Your task to perform on an android device: Open Wikipedia Image 0: 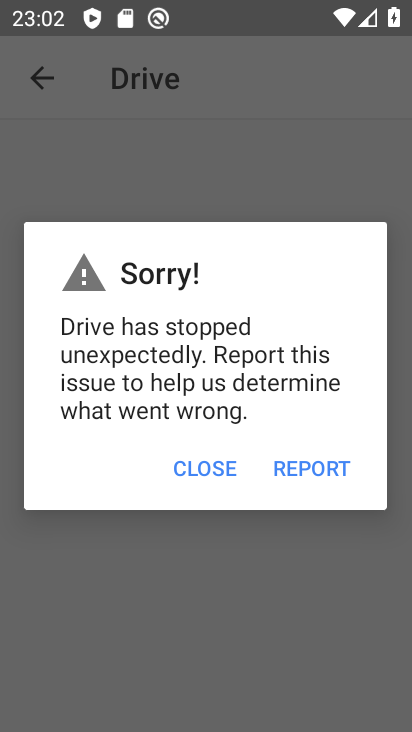
Step 0: press home button
Your task to perform on an android device: Open Wikipedia Image 1: 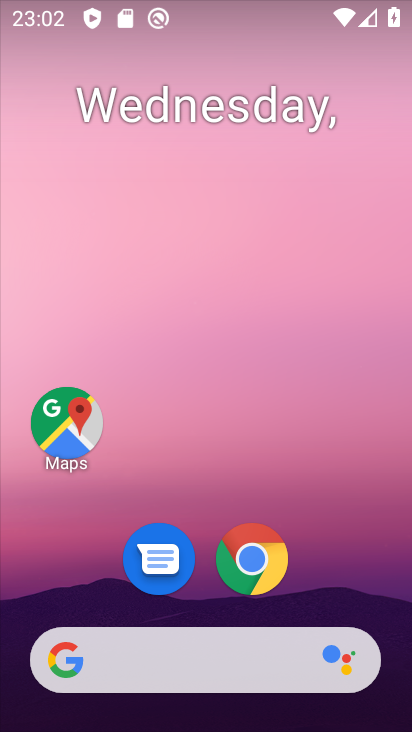
Step 1: click (258, 560)
Your task to perform on an android device: Open Wikipedia Image 2: 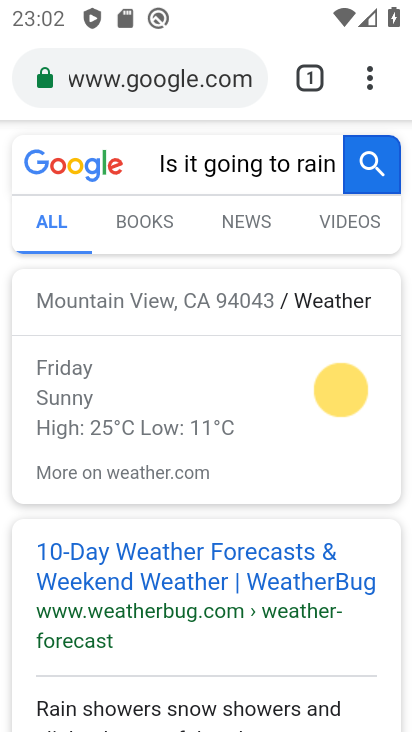
Step 2: click (161, 81)
Your task to perform on an android device: Open Wikipedia Image 3: 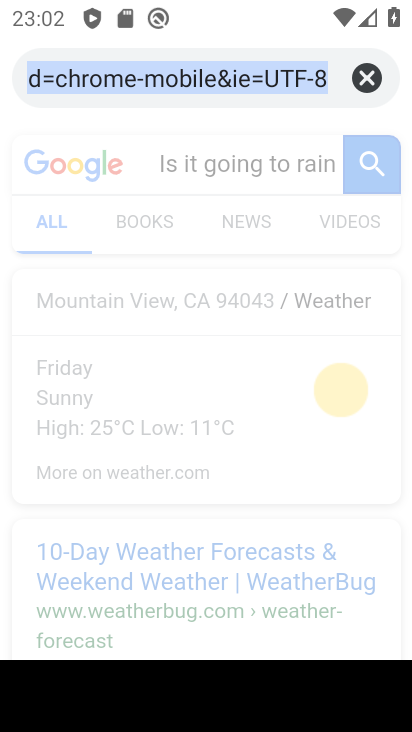
Step 3: type "wikipedia"
Your task to perform on an android device: Open Wikipedia Image 4: 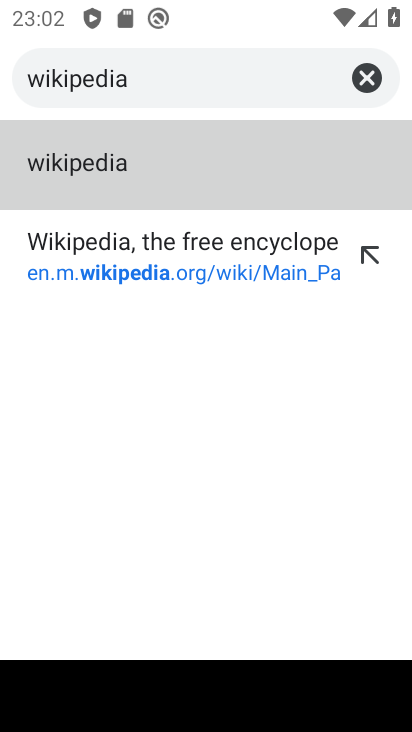
Step 4: click (167, 184)
Your task to perform on an android device: Open Wikipedia Image 5: 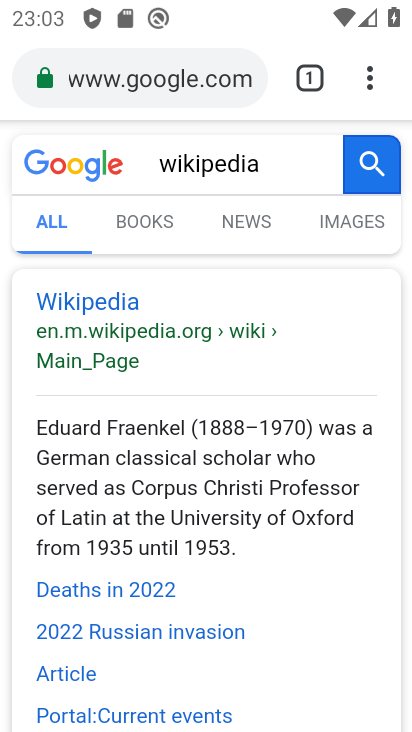
Step 5: task complete